Your task to perform on an android device: open sync settings in chrome Image 0: 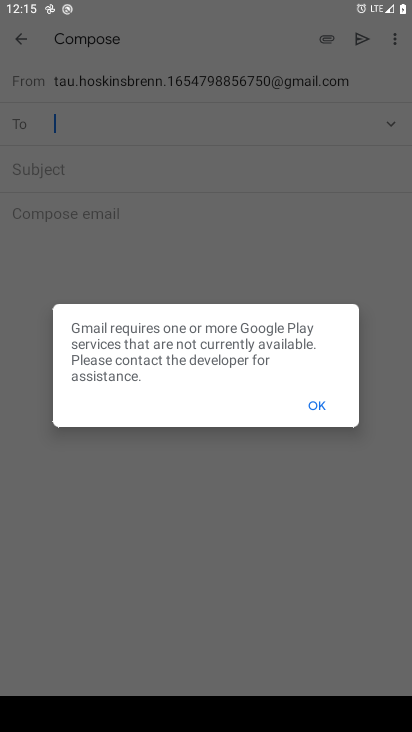
Step 0: press home button
Your task to perform on an android device: open sync settings in chrome Image 1: 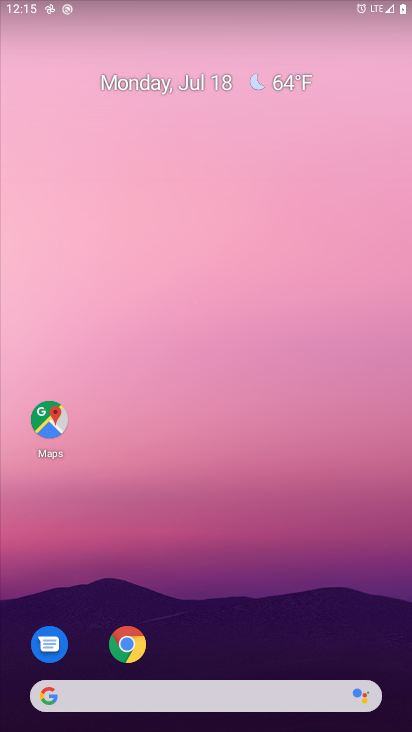
Step 1: click (135, 644)
Your task to perform on an android device: open sync settings in chrome Image 2: 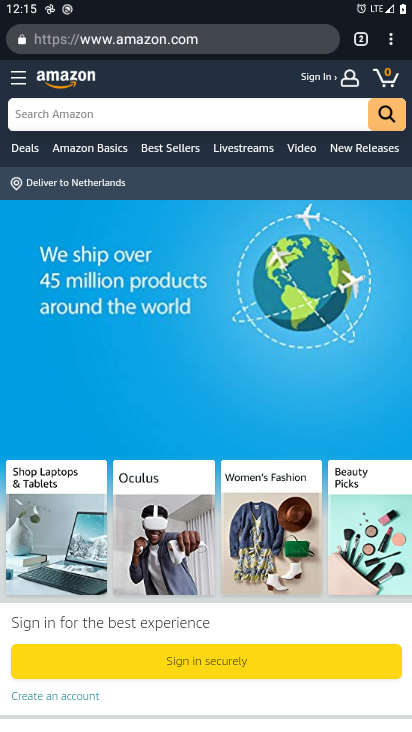
Step 2: drag from (385, 39) to (248, 472)
Your task to perform on an android device: open sync settings in chrome Image 3: 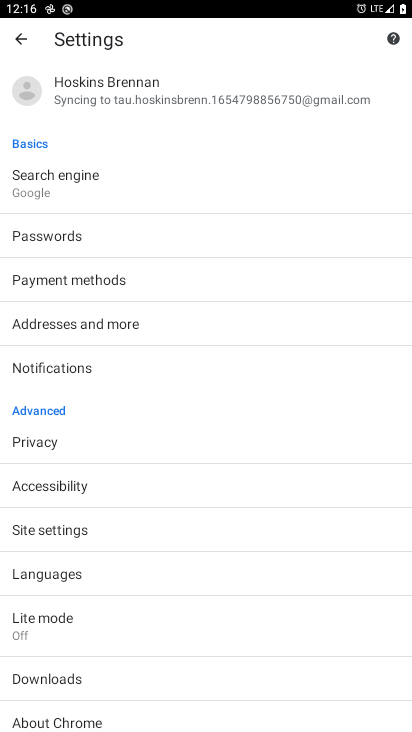
Step 3: click (70, 528)
Your task to perform on an android device: open sync settings in chrome Image 4: 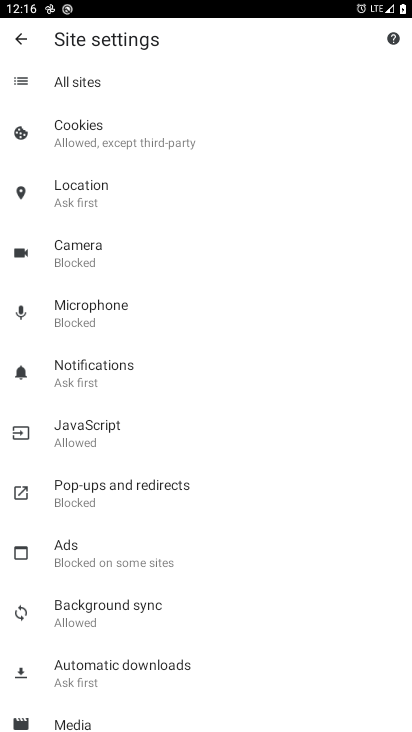
Step 4: click (162, 610)
Your task to perform on an android device: open sync settings in chrome Image 5: 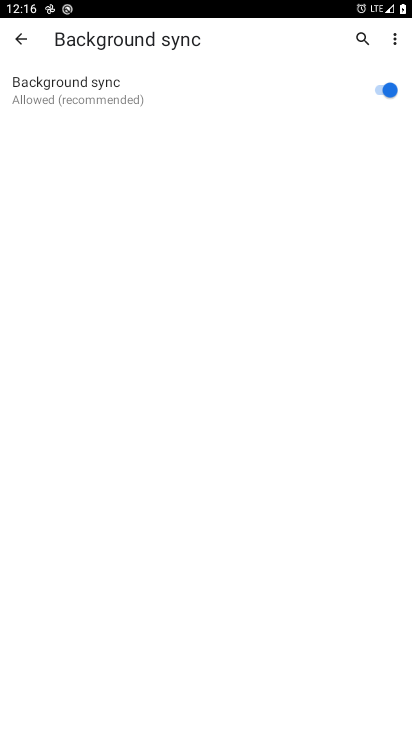
Step 5: task complete